Your task to perform on an android device: Open calendar and show me the first week of next month Image 0: 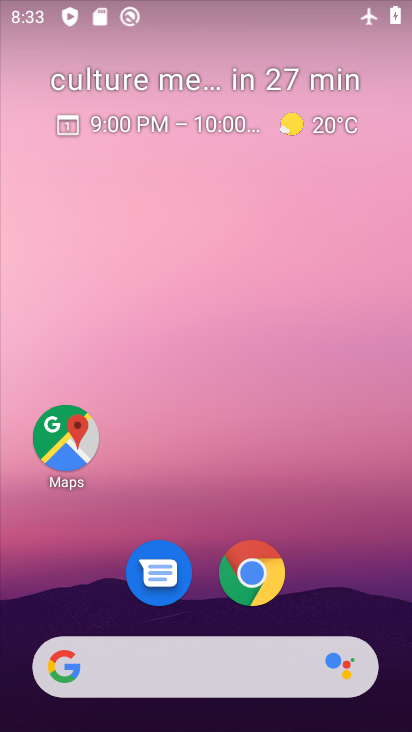
Step 0: drag from (207, 539) to (241, 99)
Your task to perform on an android device: Open calendar and show me the first week of next month Image 1: 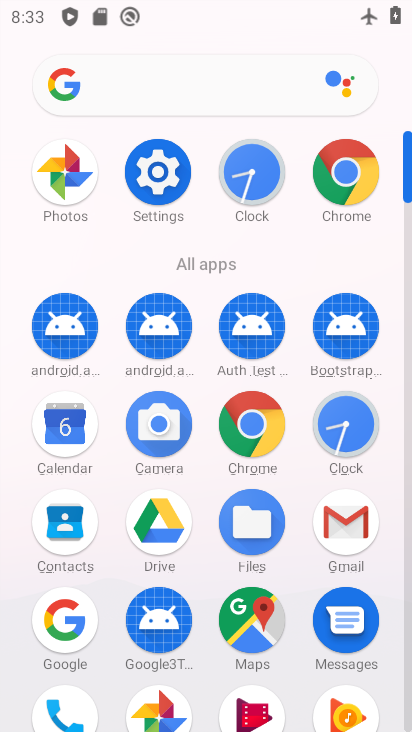
Step 1: click (63, 446)
Your task to perform on an android device: Open calendar and show me the first week of next month Image 2: 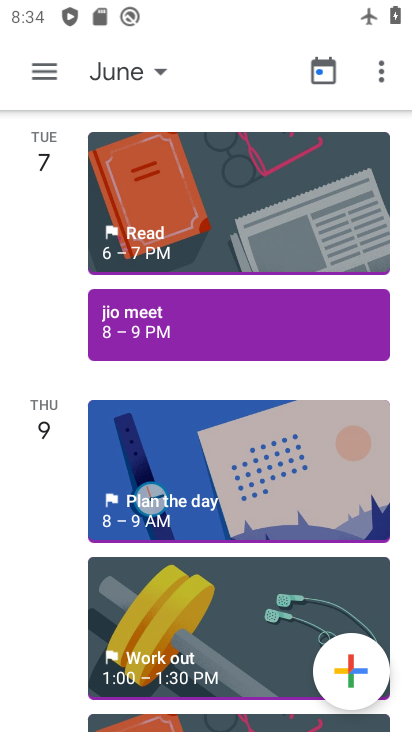
Step 2: click (130, 73)
Your task to perform on an android device: Open calendar and show me the first week of next month Image 3: 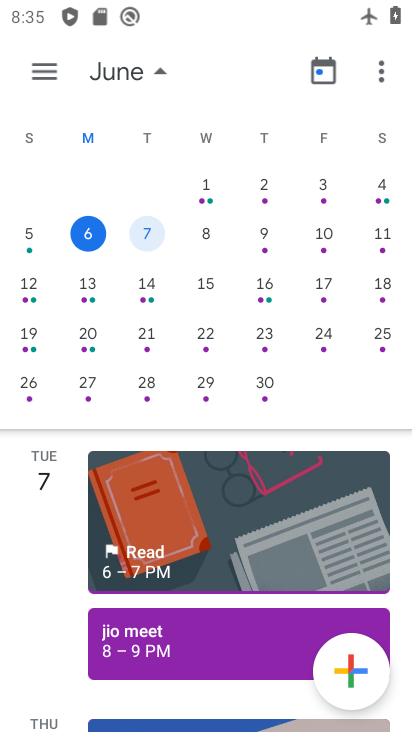
Step 3: drag from (382, 296) to (17, 288)
Your task to perform on an android device: Open calendar and show me the first week of next month Image 4: 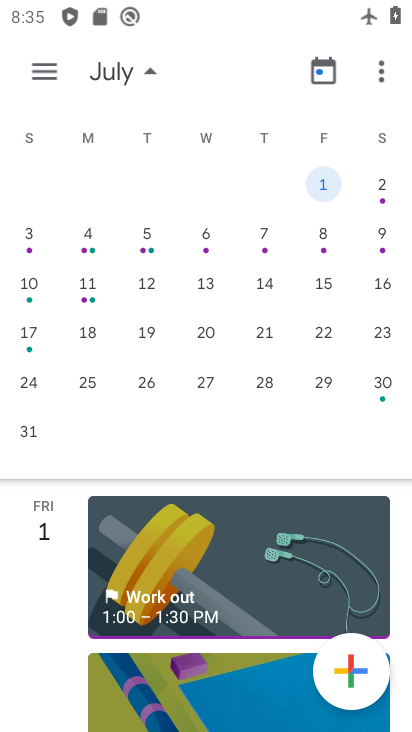
Step 4: click (82, 235)
Your task to perform on an android device: Open calendar and show me the first week of next month Image 5: 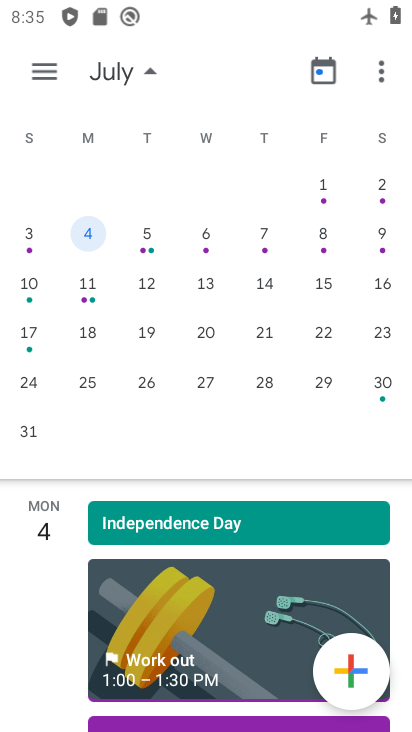
Step 5: task complete